Your task to perform on an android device: What is the recent news? Image 0: 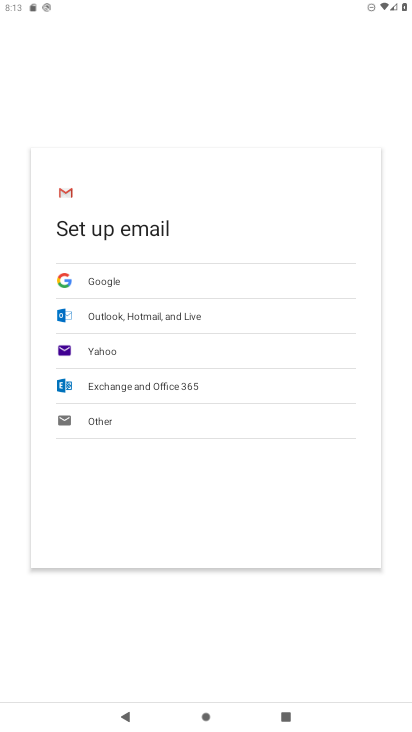
Step 0: press home button
Your task to perform on an android device: What is the recent news? Image 1: 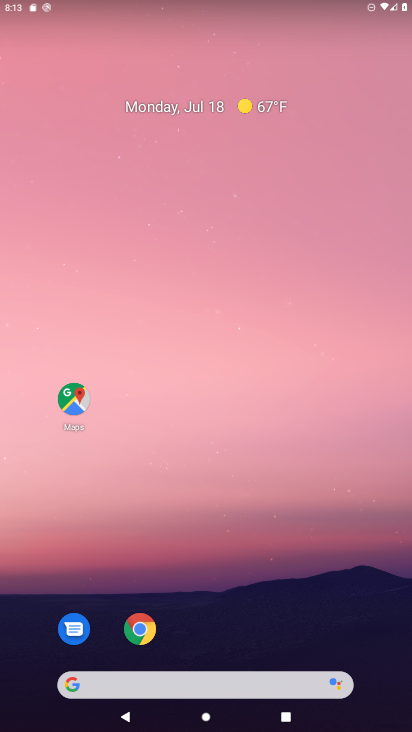
Step 1: click (222, 683)
Your task to perform on an android device: What is the recent news? Image 2: 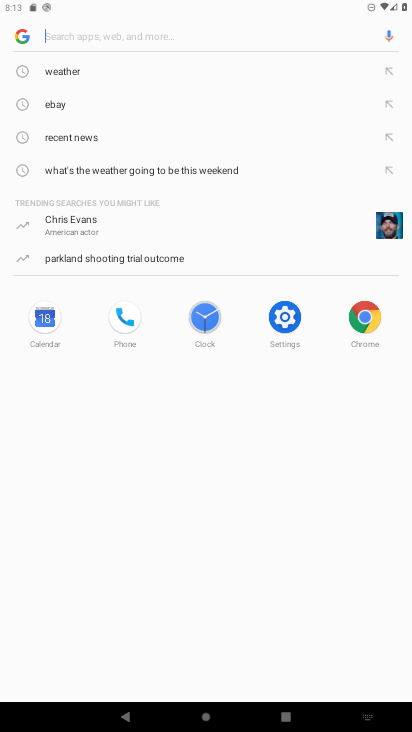
Step 2: click (76, 138)
Your task to perform on an android device: What is the recent news? Image 3: 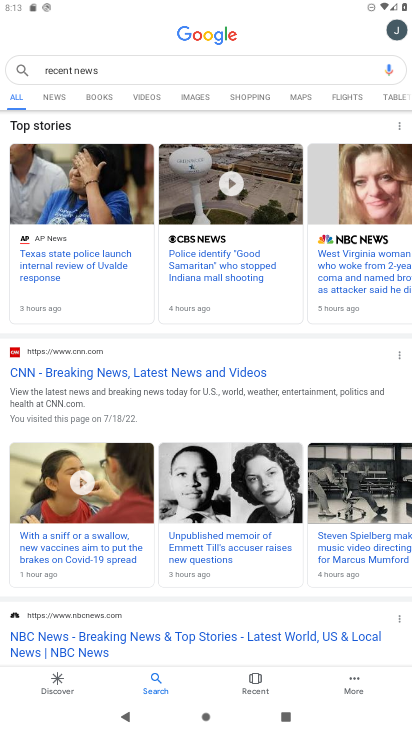
Step 3: task complete